Your task to perform on an android device: toggle sleep mode Image 0: 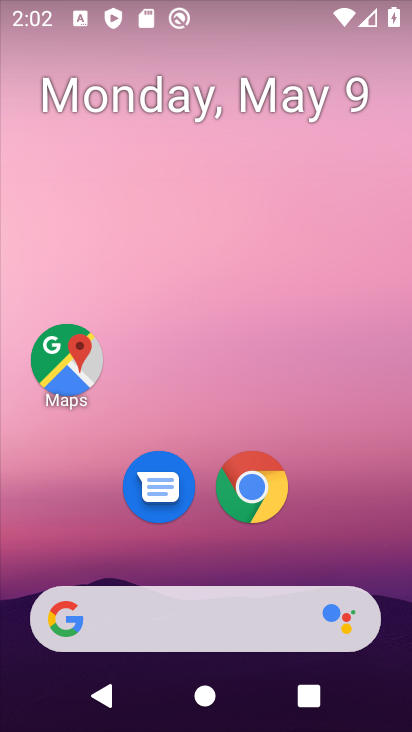
Step 0: drag from (356, 391) to (318, 0)
Your task to perform on an android device: toggle sleep mode Image 1: 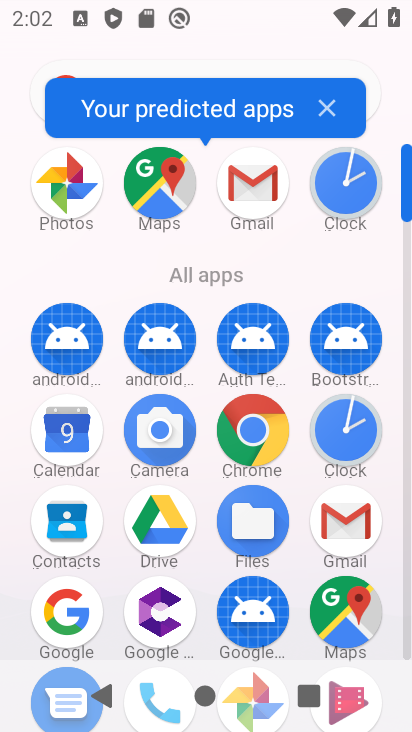
Step 1: drag from (199, 560) to (248, 177)
Your task to perform on an android device: toggle sleep mode Image 2: 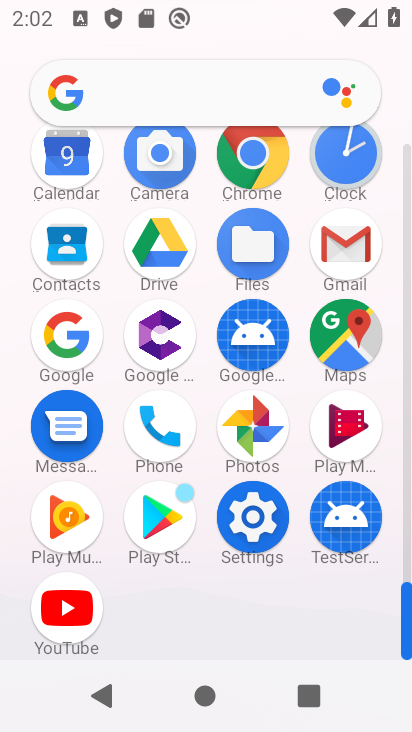
Step 2: click (242, 503)
Your task to perform on an android device: toggle sleep mode Image 3: 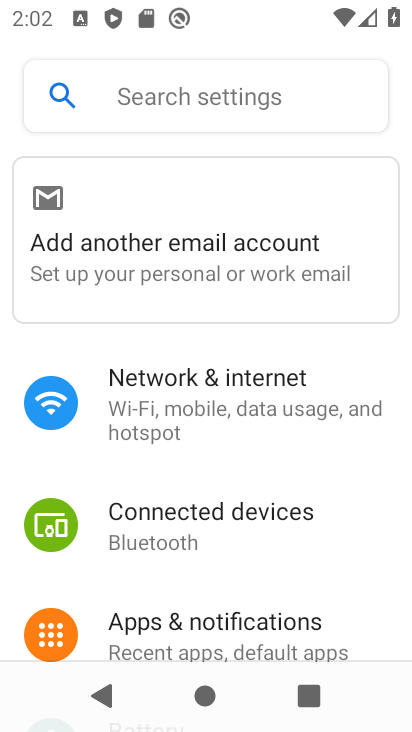
Step 3: drag from (236, 575) to (275, 218)
Your task to perform on an android device: toggle sleep mode Image 4: 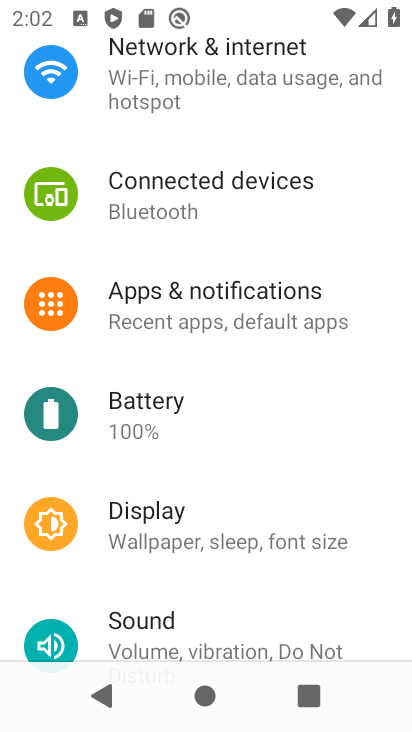
Step 4: click (222, 517)
Your task to perform on an android device: toggle sleep mode Image 5: 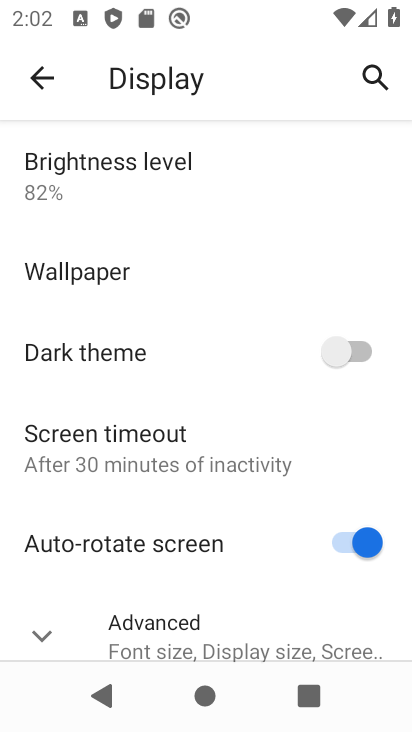
Step 5: drag from (239, 586) to (269, 174)
Your task to perform on an android device: toggle sleep mode Image 6: 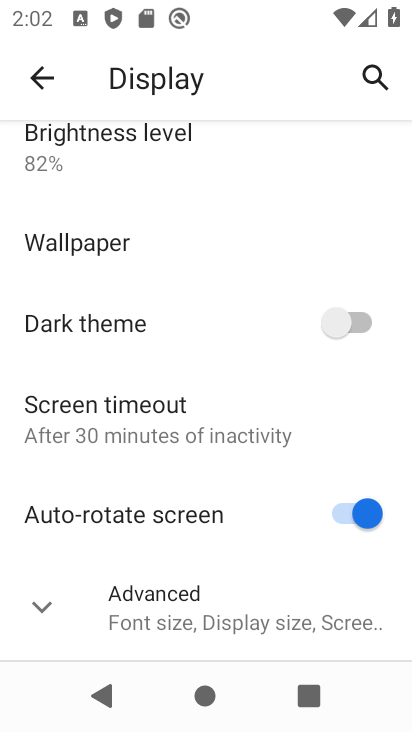
Step 6: click (39, 592)
Your task to perform on an android device: toggle sleep mode Image 7: 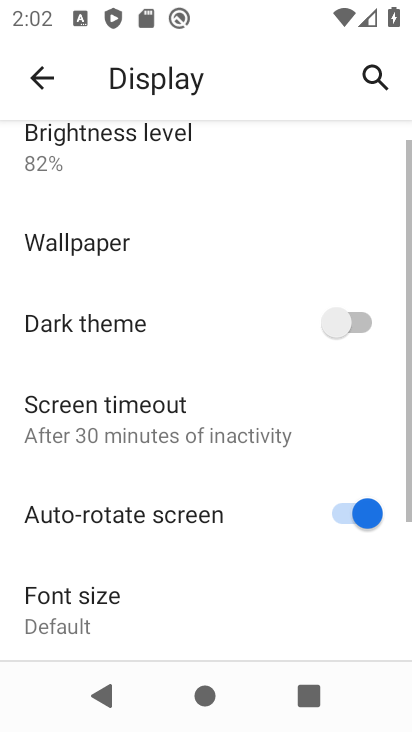
Step 7: task complete